Your task to perform on an android device: turn on notifications settings in the gmail app Image 0: 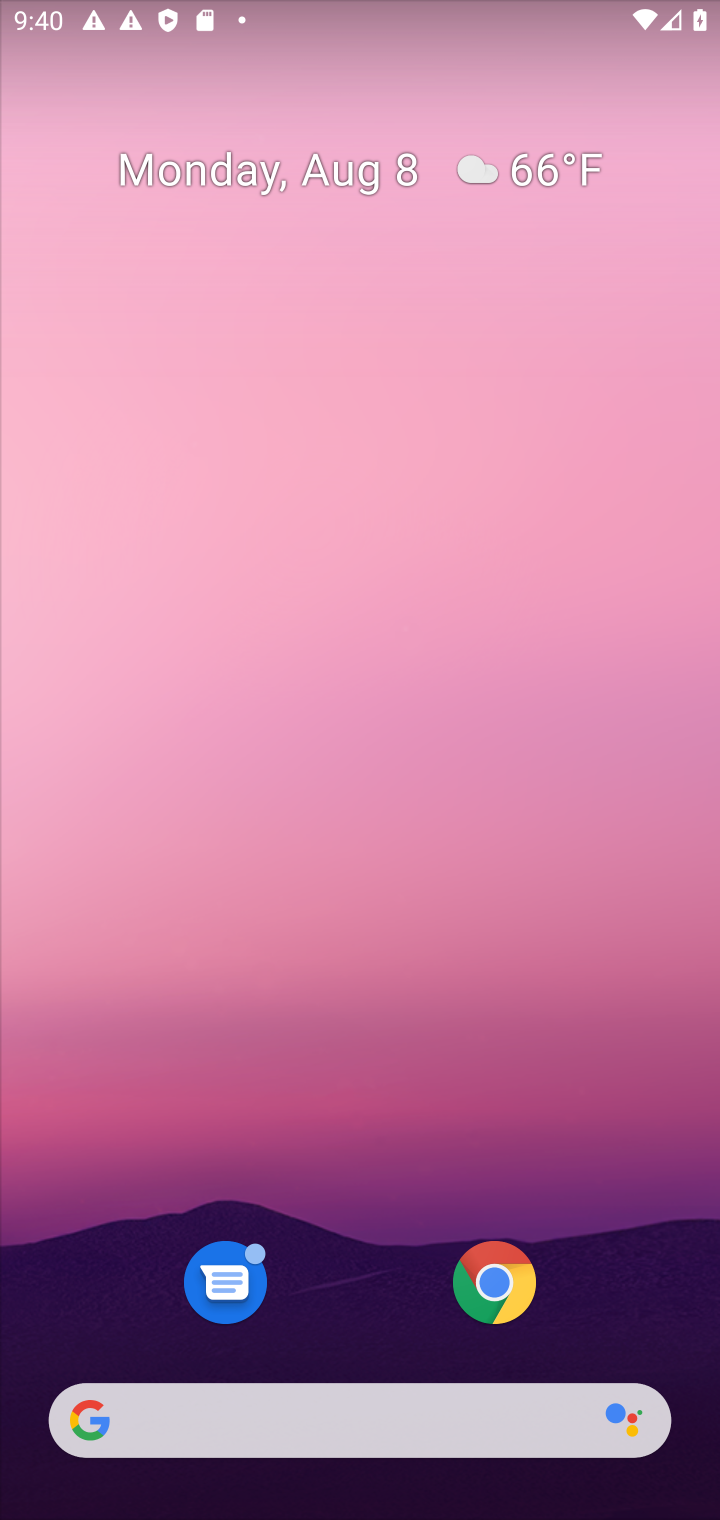
Step 0: drag from (446, 65) to (546, 101)
Your task to perform on an android device: turn on notifications settings in the gmail app Image 1: 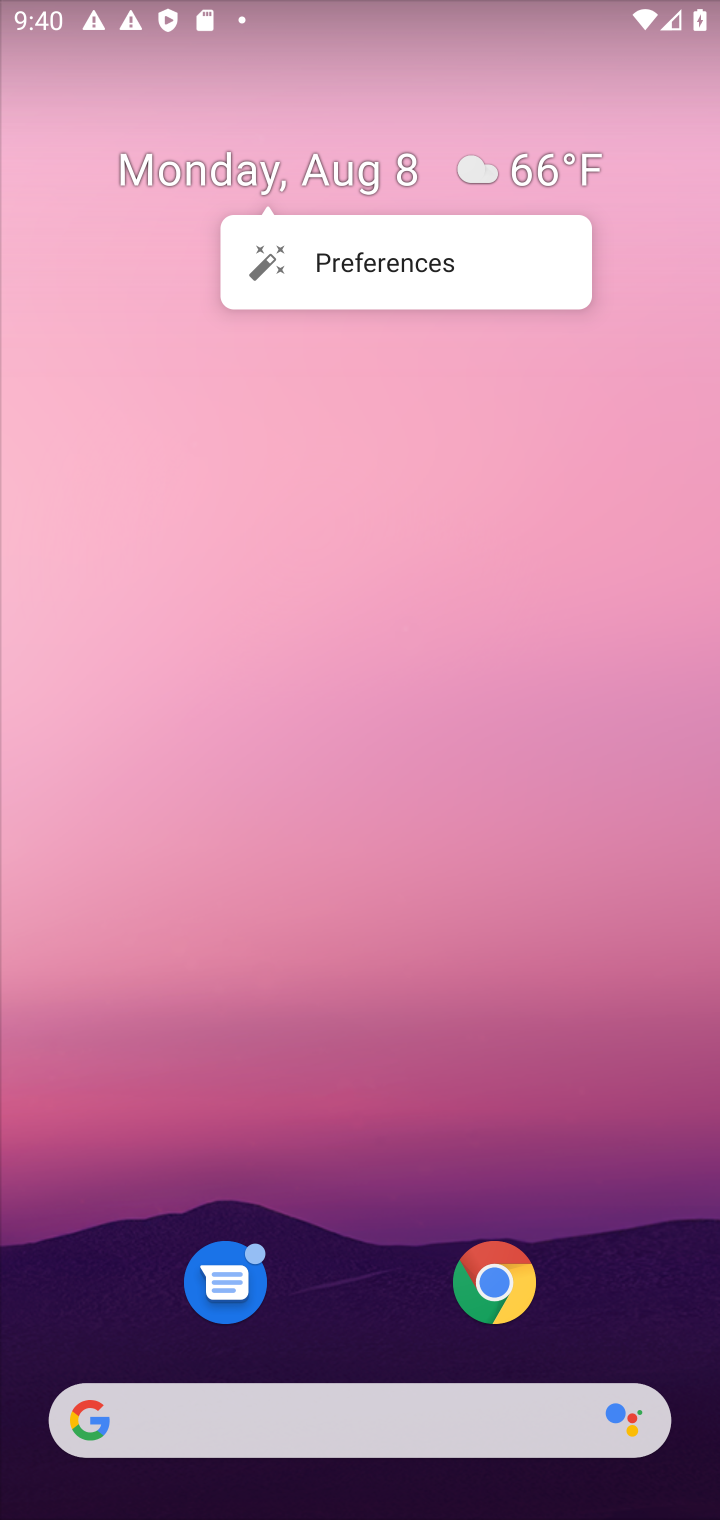
Step 1: click (300, 801)
Your task to perform on an android device: turn on notifications settings in the gmail app Image 2: 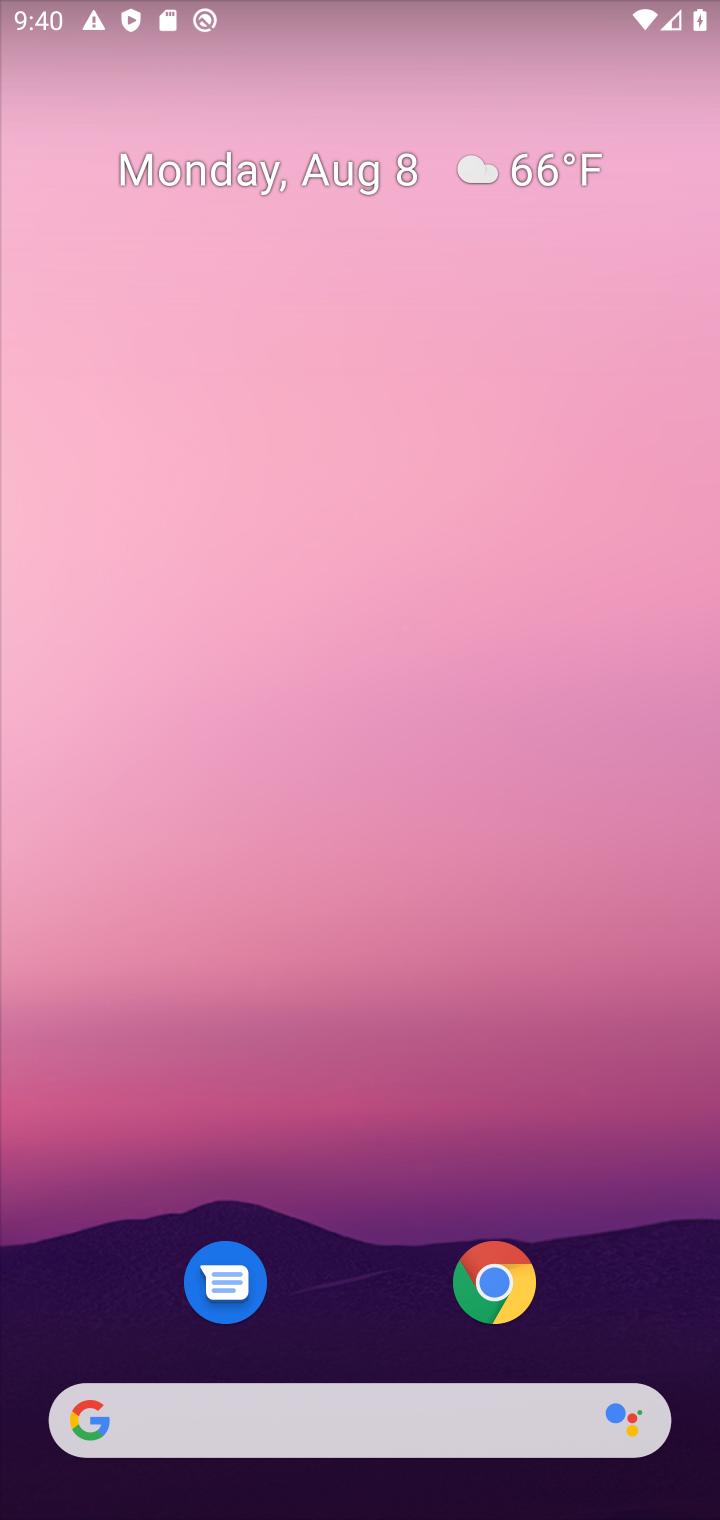
Step 2: drag from (343, 1191) to (310, 26)
Your task to perform on an android device: turn on notifications settings in the gmail app Image 3: 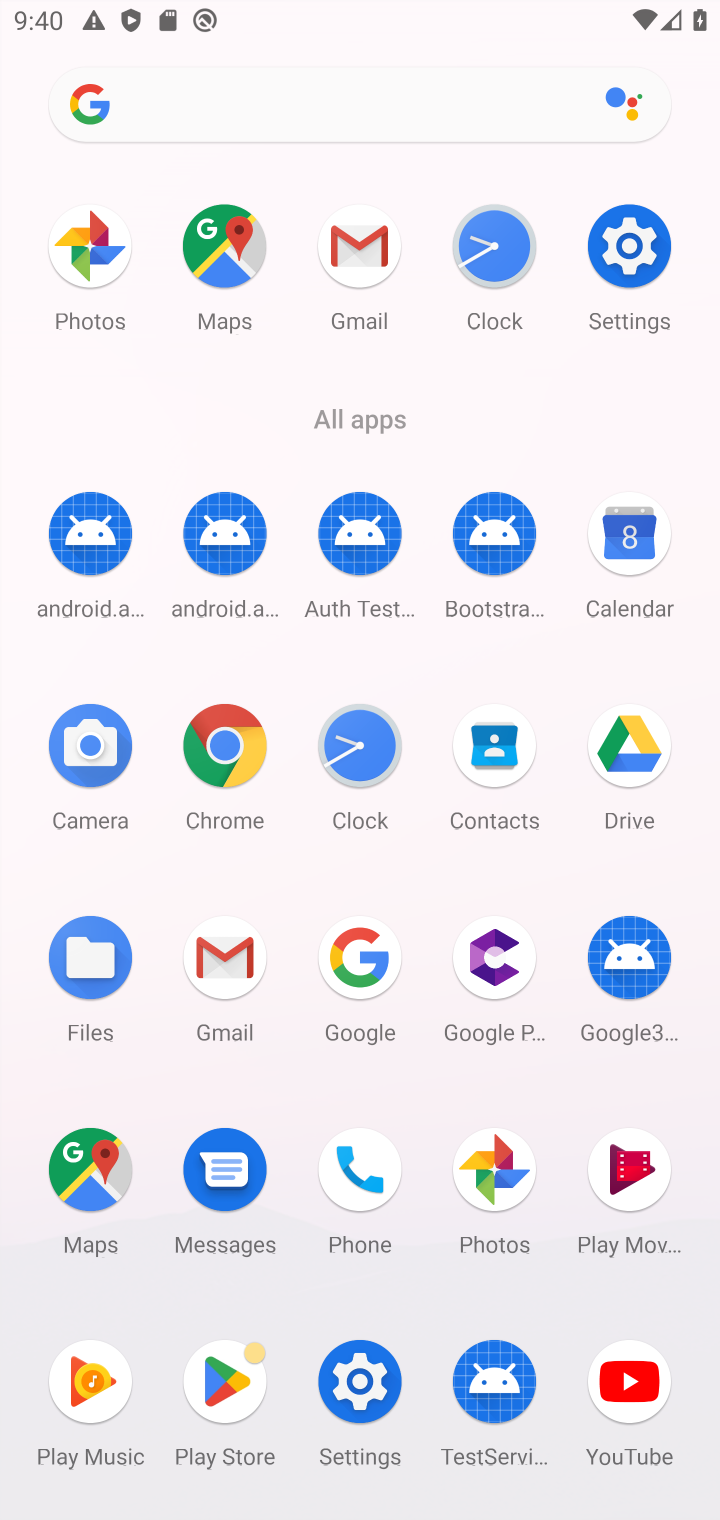
Step 3: click (355, 249)
Your task to perform on an android device: turn on notifications settings in the gmail app Image 4: 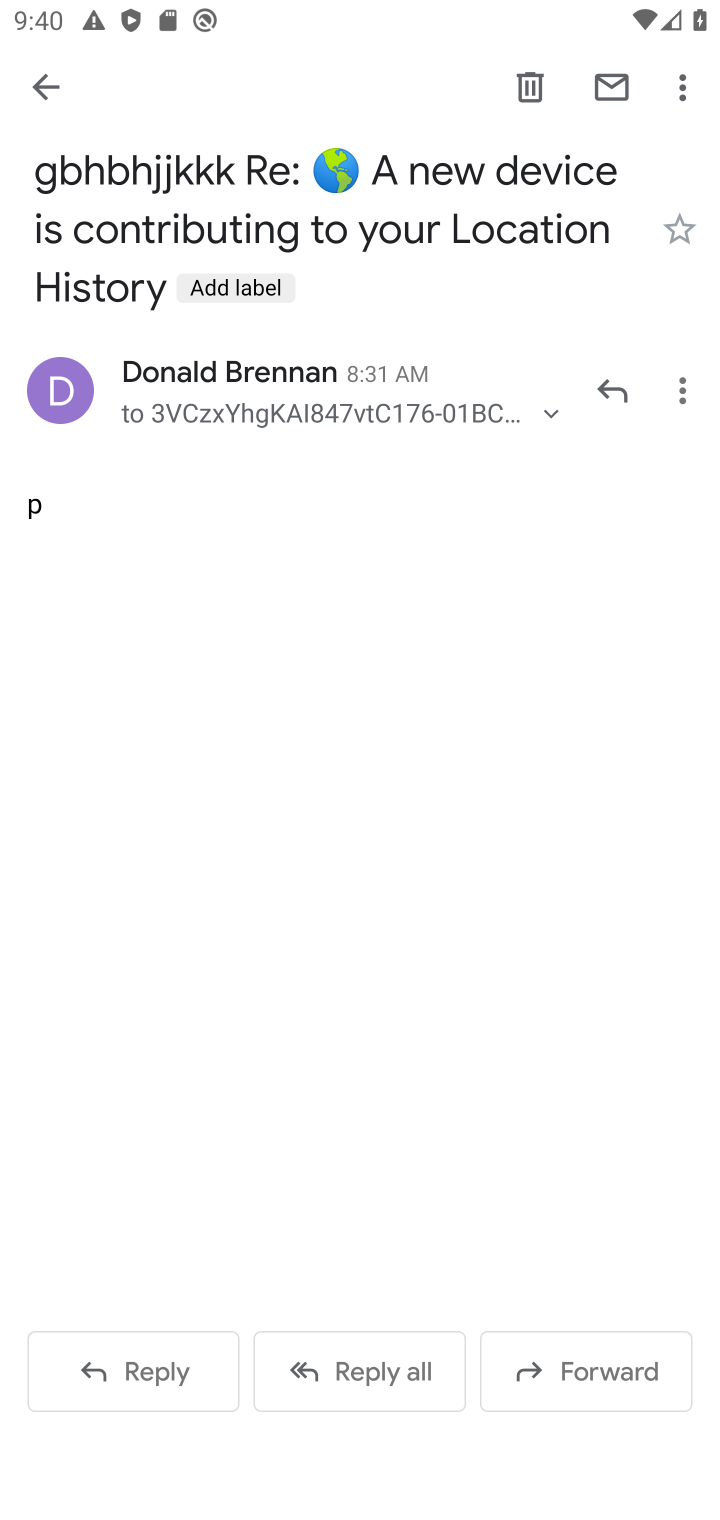
Step 4: click (48, 94)
Your task to perform on an android device: turn on notifications settings in the gmail app Image 5: 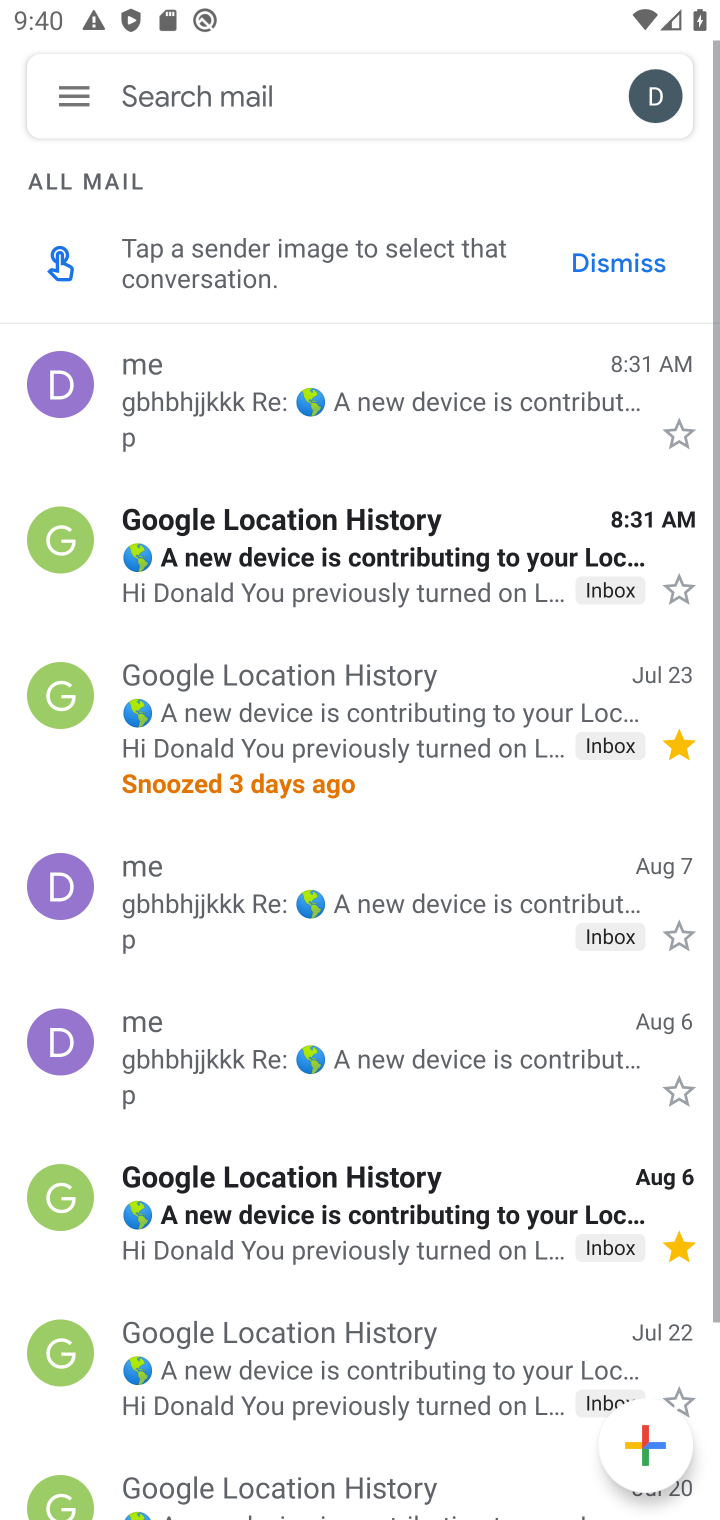
Step 5: click (71, 92)
Your task to perform on an android device: turn on notifications settings in the gmail app Image 6: 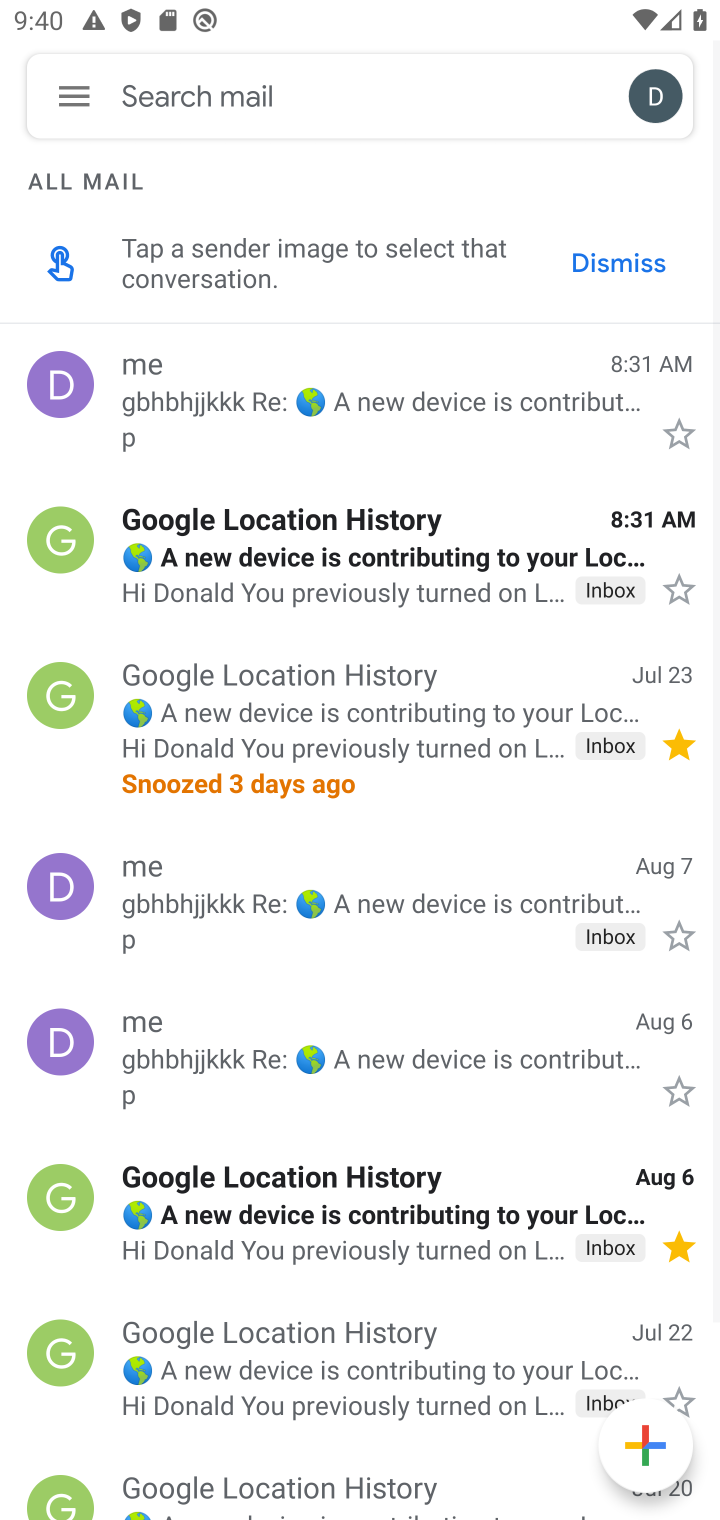
Step 6: click (71, 92)
Your task to perform on an android device: turn on notifications settings in the gmail app Image 7: 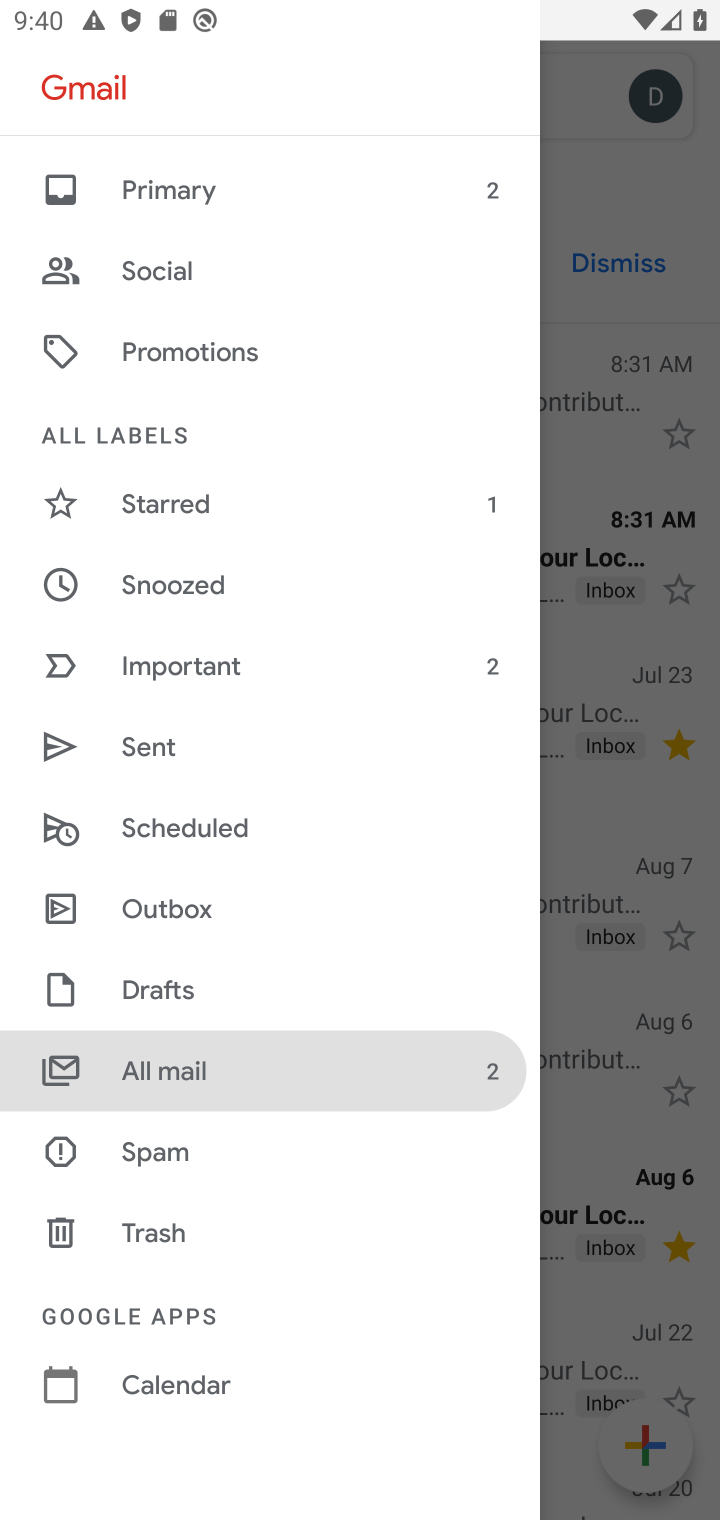
Step 7: drag from (323, 1137) to (222, 180)
Your task to perform on an android device: turn on notifications settings in the gmail app Image 8: 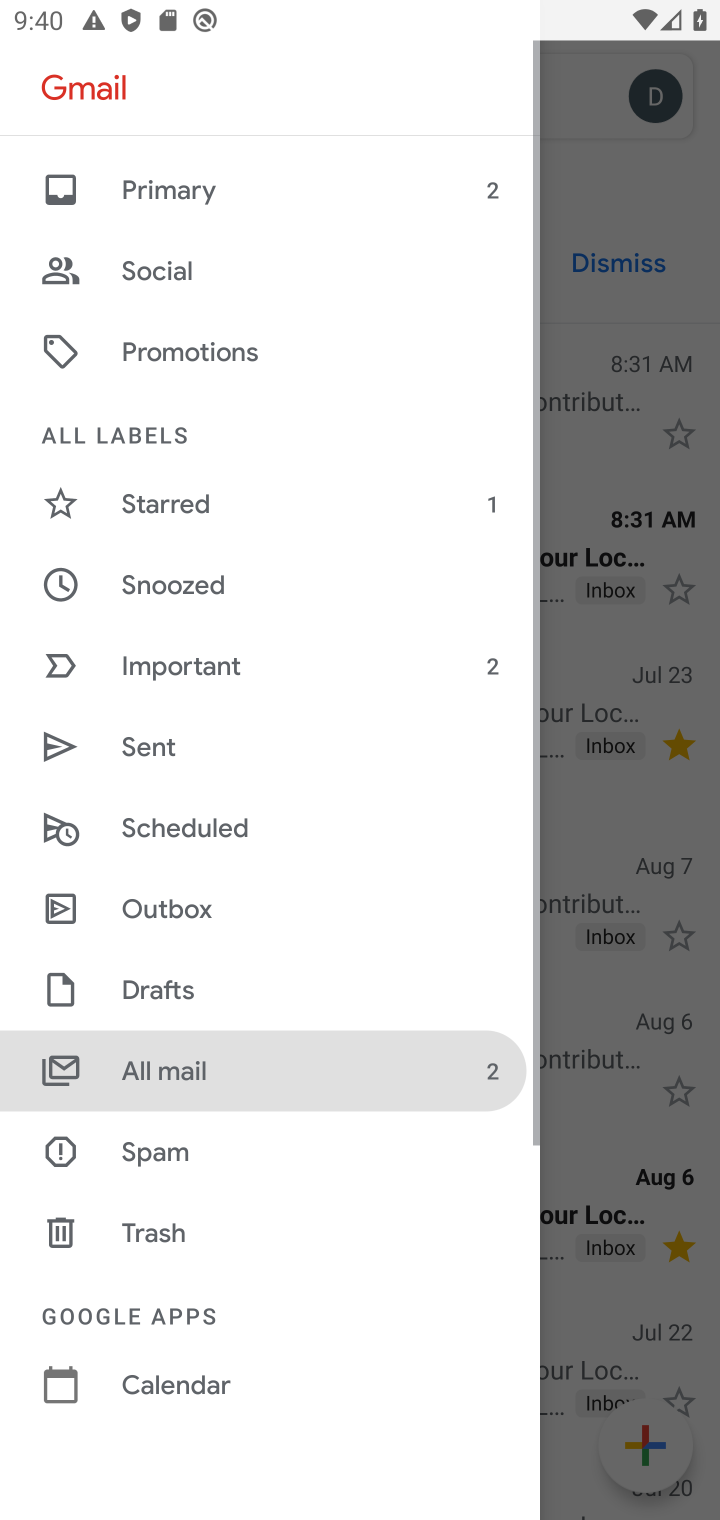
Step 8: drag from (264, 1237) to (331, 700)
Your task to perform on an android device: turn on notifications settings in the gmail app Image 9: 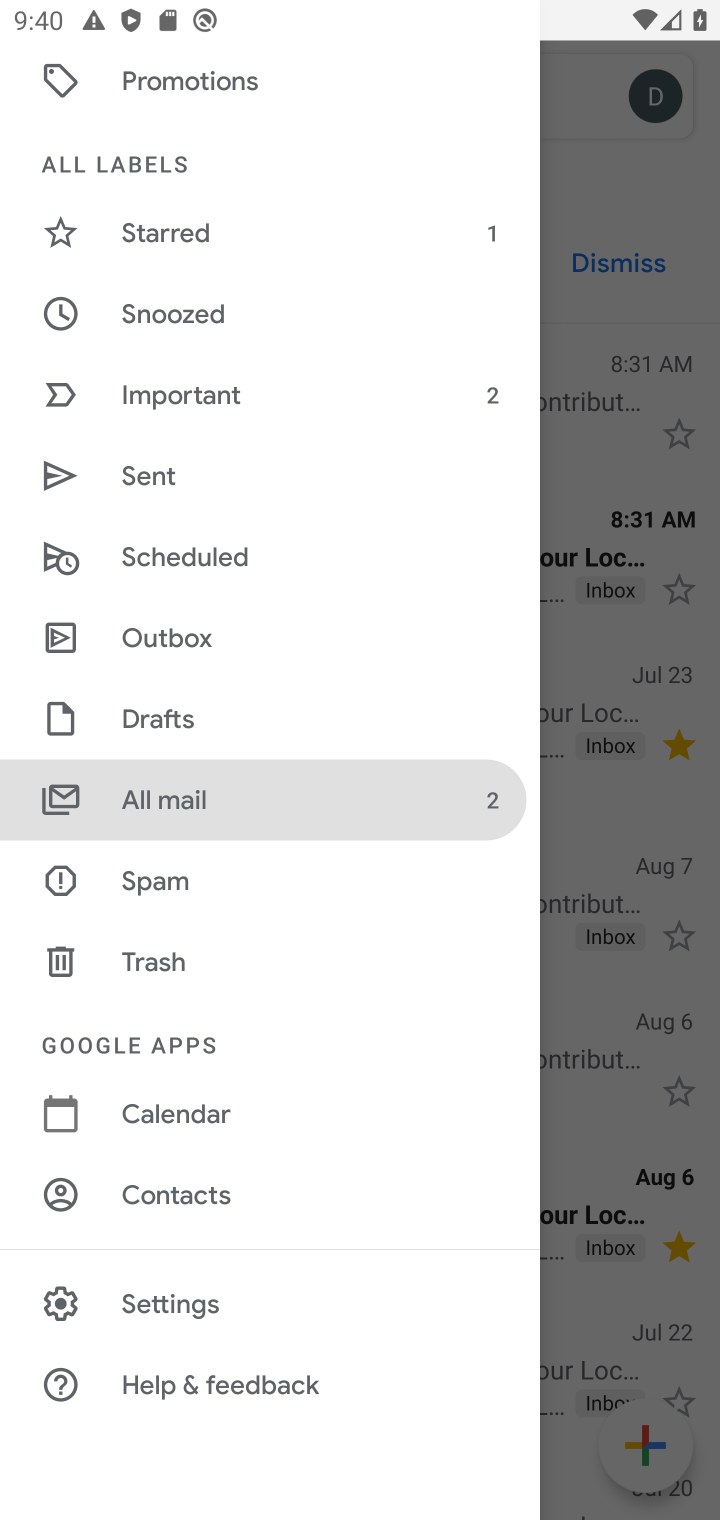
Step 9: click (177, 1312)
Your task to perform on an android device: turn on notifications settings in the gmail app Image 10: 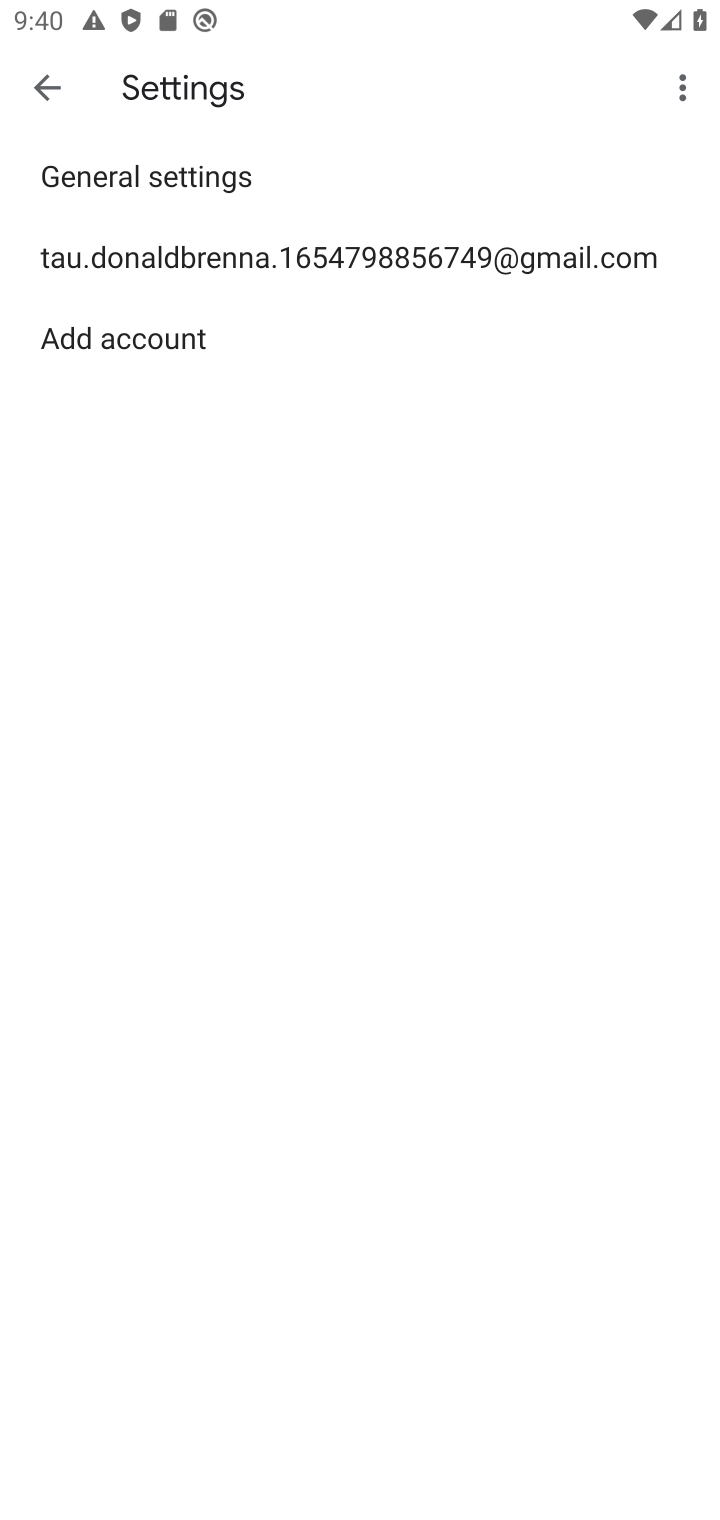
Step 10: click (301, 259)
Your task to perform on an android device: turn on notifications settings in the gmail app Image 11: 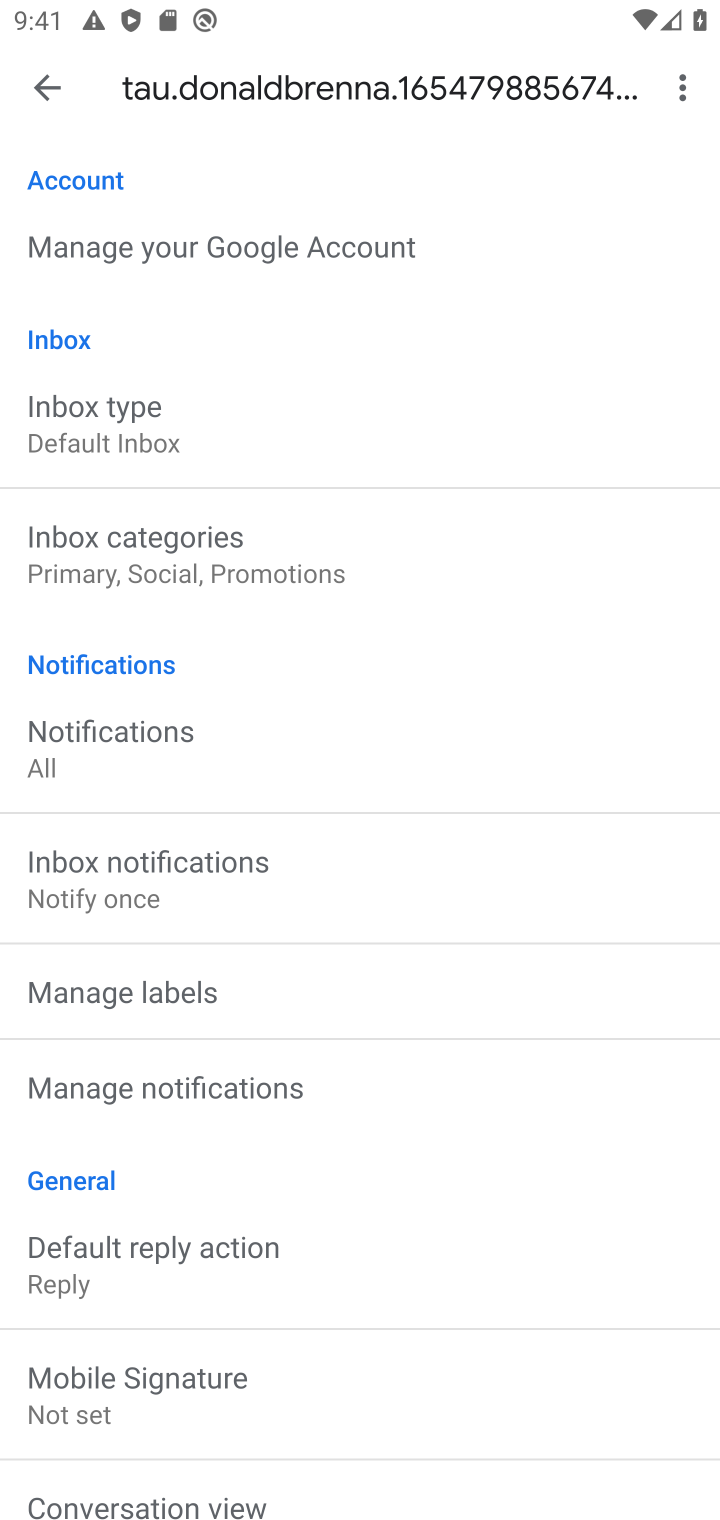
Step 11: click (175, 1075)
Your task to perform on an android device: turn on notifications settings in the gmail app Image 12: 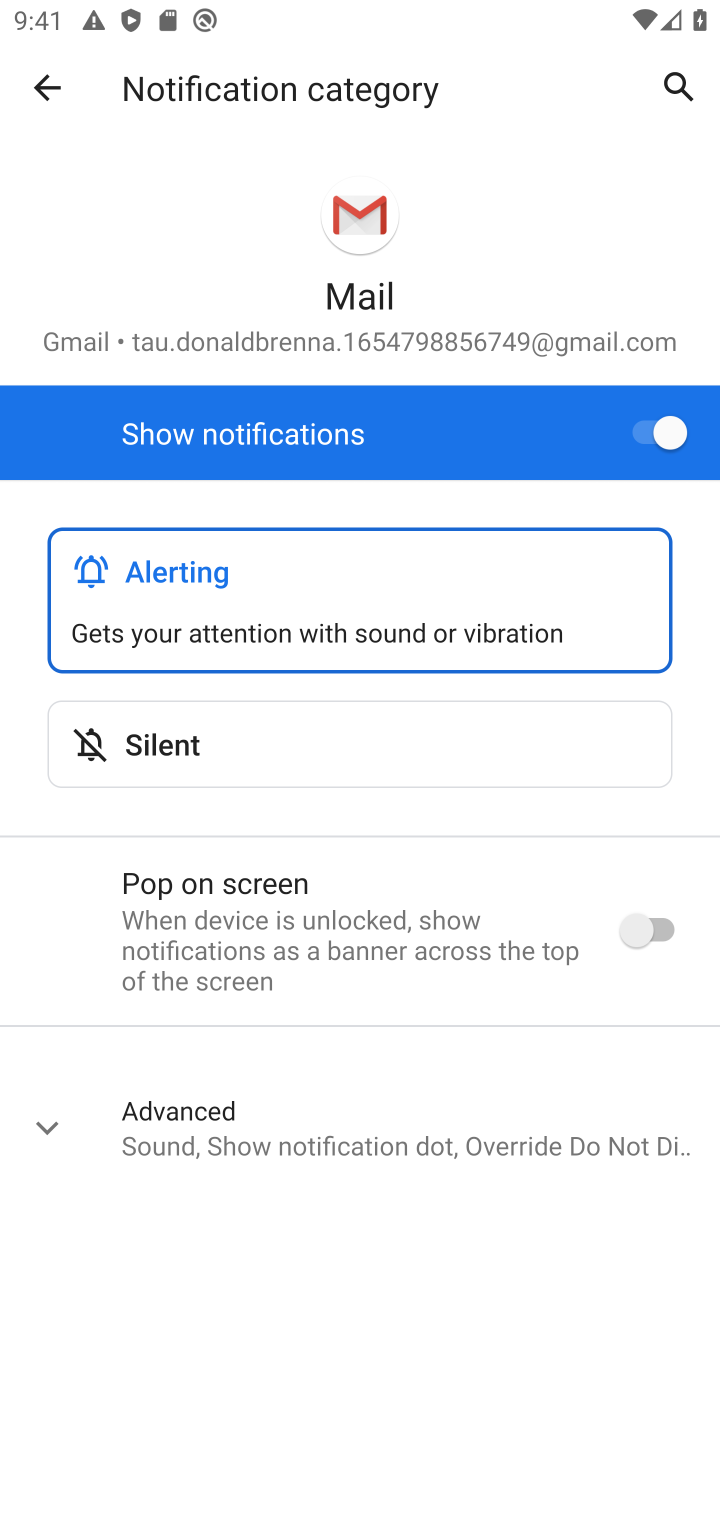
Step 12: task complete